Your task to perform on an android device: Play the last video I watched on Youtube Image 0: 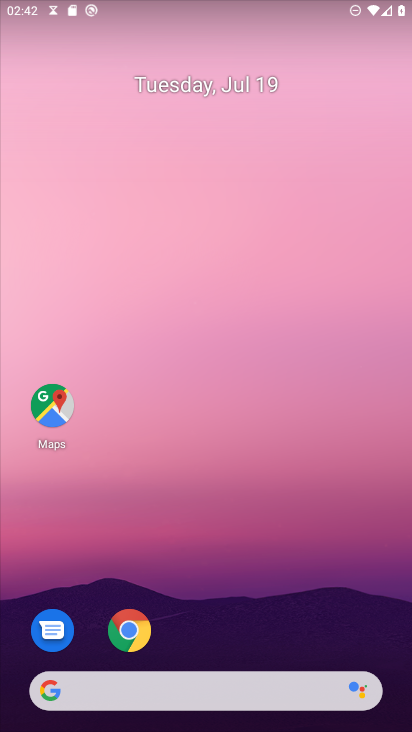
Step 0: press home button
Your task to perform on an android device: Play the last video I watched on Youtube Image 1: 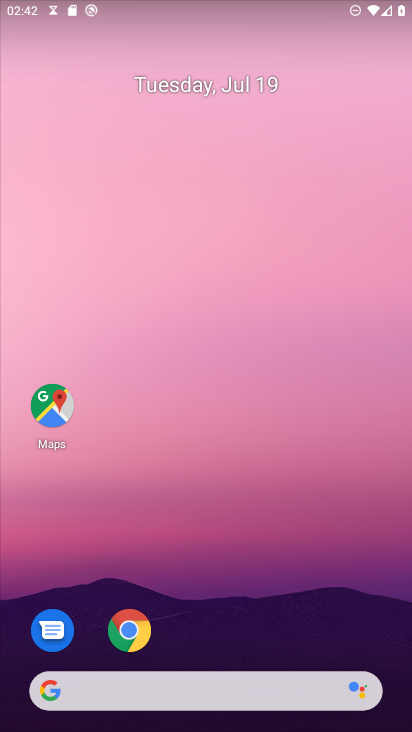
Step 1: drag from (165, 680) to (258, 133)
Your task to perform on an android device: Play the last video I watched on Youtube Image 2: 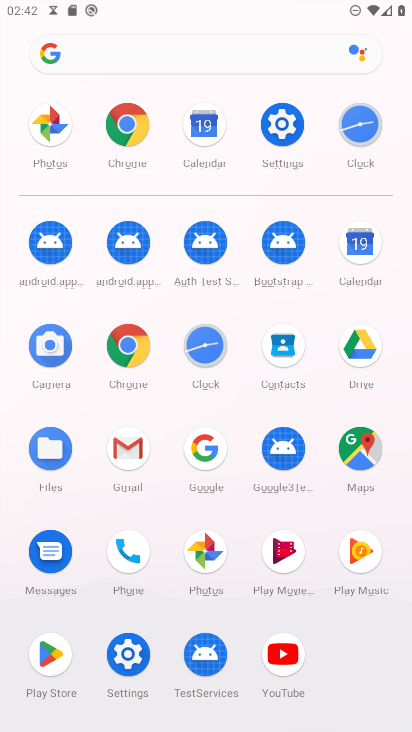
Step 2: click (288, 659)
Your task to perform on an android device: Play the last video I watched on Youtube Image 3: 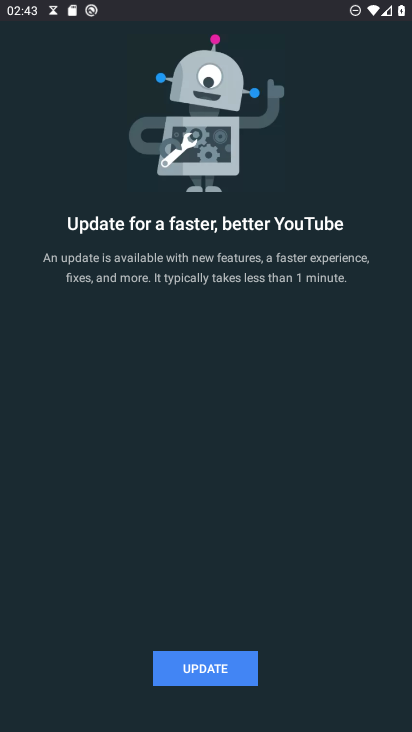
Step 3: click (236, 663)
Your task to perform on an android device: Play the last video I watched on Youtube Image 4: 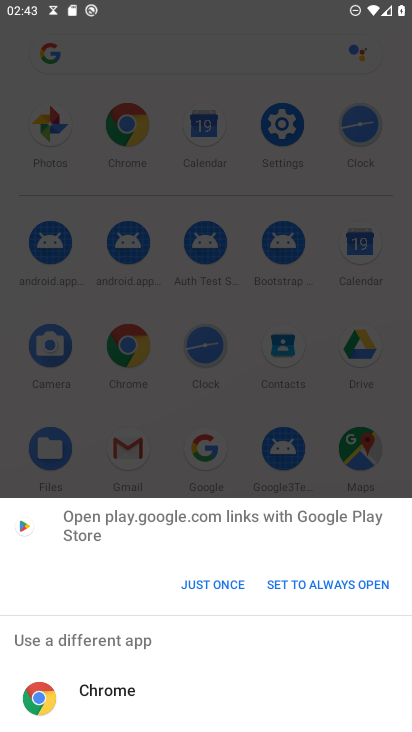
Step 4: click (214, 588)
Your task to perform on an android device: Play the last video I watched on Youtube Image 5: 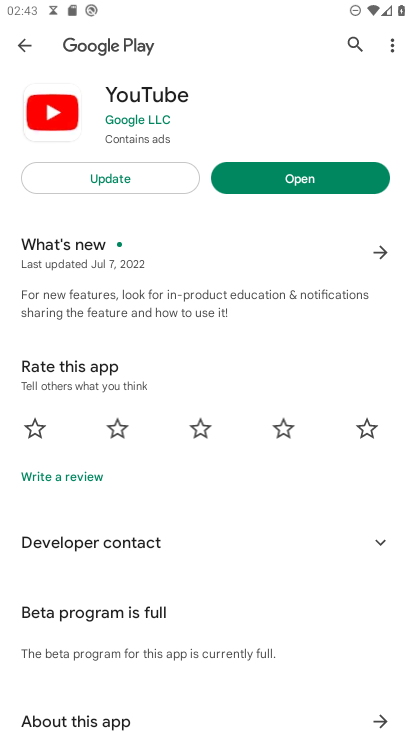
Step 5: click (153, 179)
Your task to perform on an android device: Play the last video I watched on Youtube Image 6: 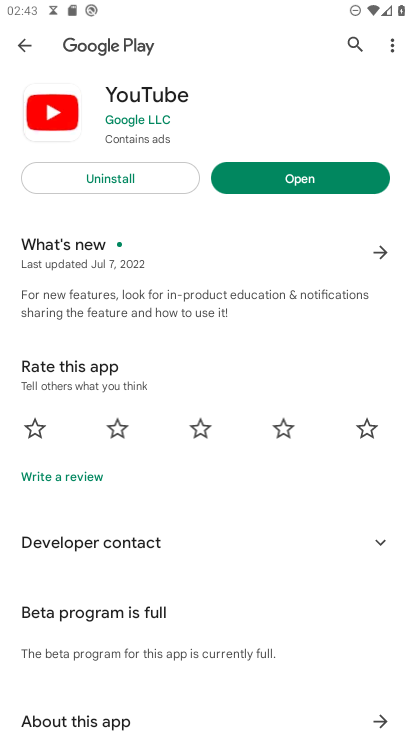
Step 6: click (305, 173)
Your task to perform on an android device: Play the last video I watched on Youtube Image 7: 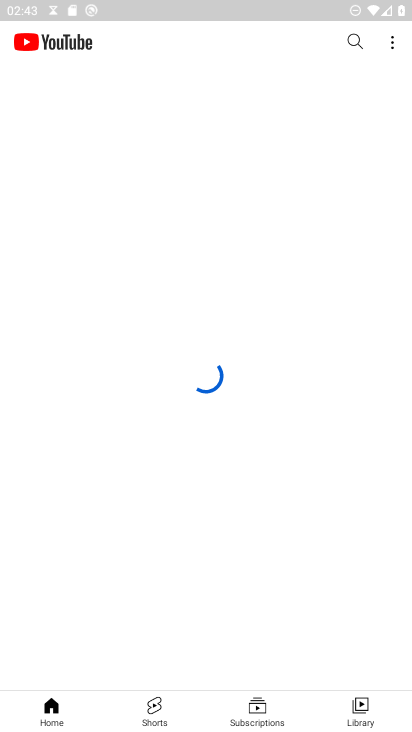
Step 7: click (359, 716)
Your task to perform on an android device: Play the last video I watched on Youtube Image 8: 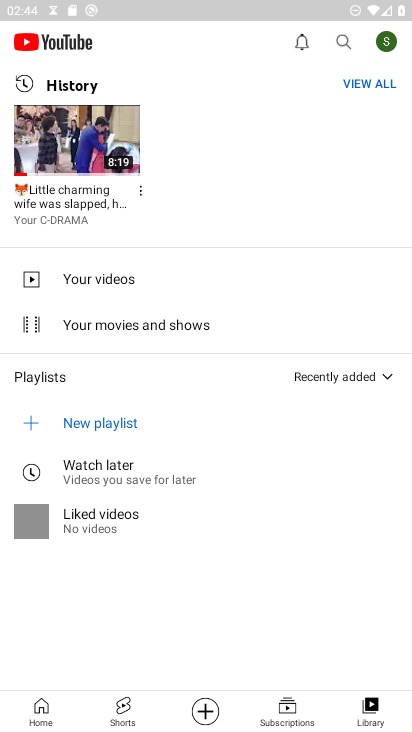
Step 8: click (80, 141)
Your task to perform on an android device: Play the last video I watched on Youtube Image 9: 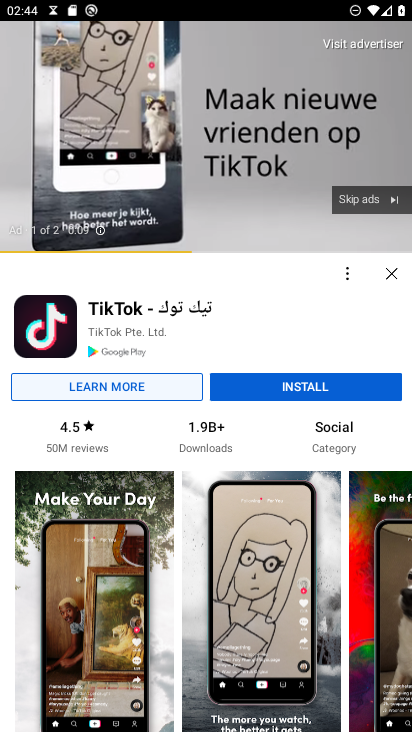
Step 9: click (353, 204)
Your task to perform on an android device: Play the last video I watched on Youtube Image 10: 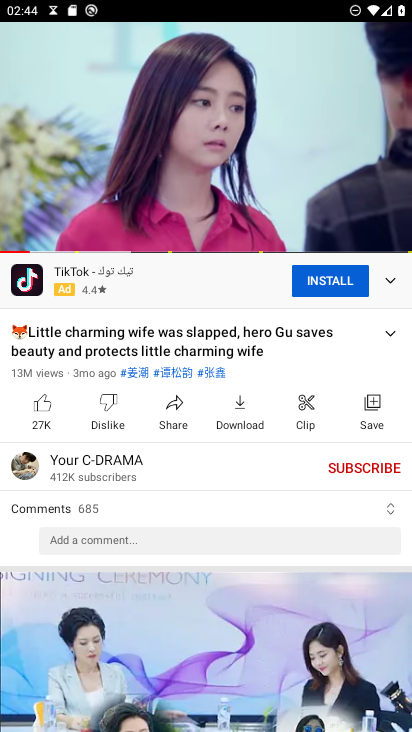
Step 10: click (198, 137)
Your task to perform on an android device: Play the last video I watched on Youtube Image 11: 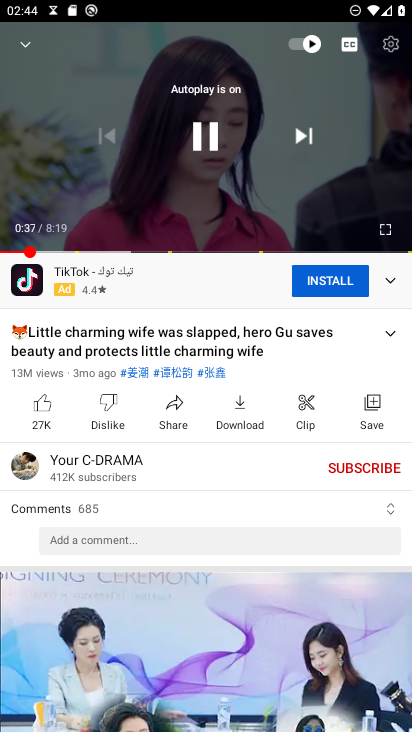
Step 11: click (209, 144)
Your task to perform on an android device: Play the last video I watched on Youtube Image 12: 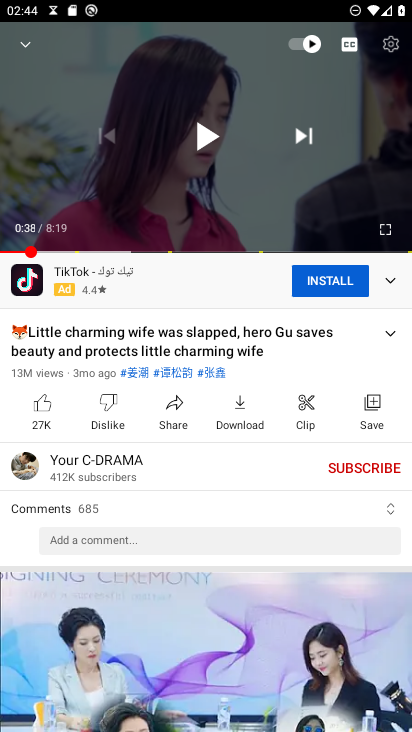
Step 12: task complete